Your task to perform on an android device: Open my contact list Image 0: 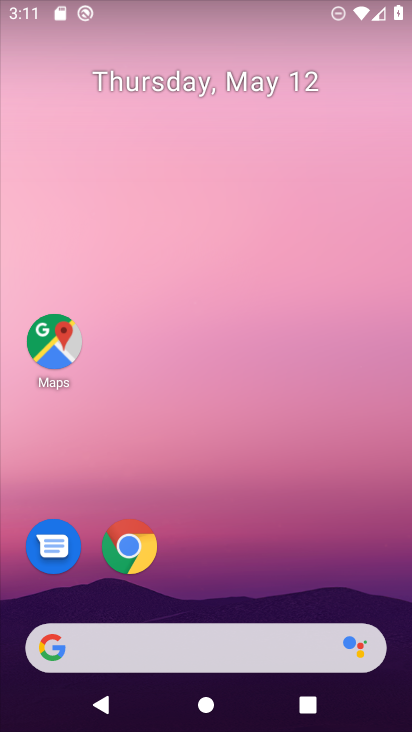
Step 0: drag from (179, 606) to (300, 97)
Your task to perform on an android device: Open my contact list Image 1: 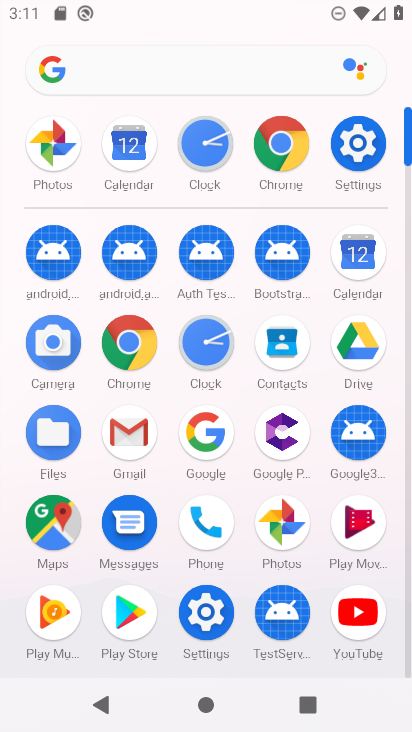
Step 1: click (204, 510)
Your task to perform on an android device: Open my contact list Image 2: 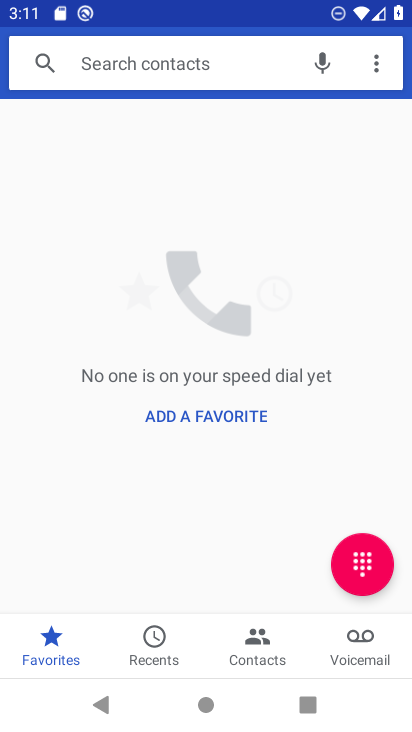
Step 2: click (266, 640)
Your task to perform on an android device: Open my contact list Image 3: 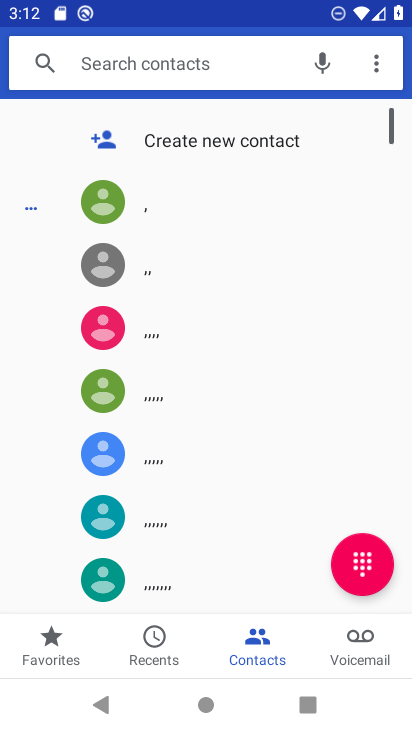
Step 3: task complete